Your task to perform on an android device: Open Chrome and go to settings Image 0: 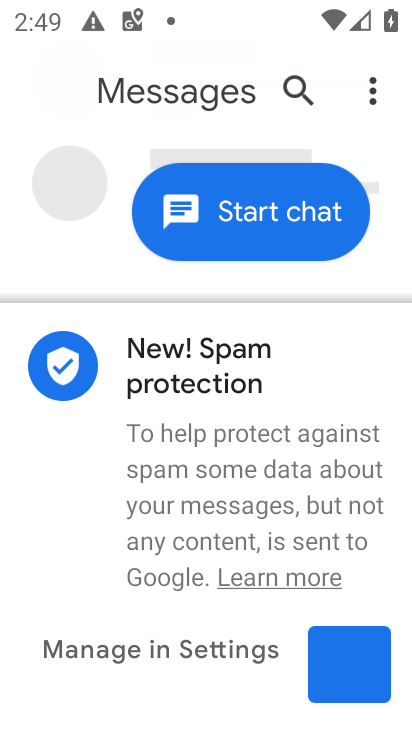
Step 0: press home button
Your task to perform on an android device: Open Chrome and go to settings Image 1: 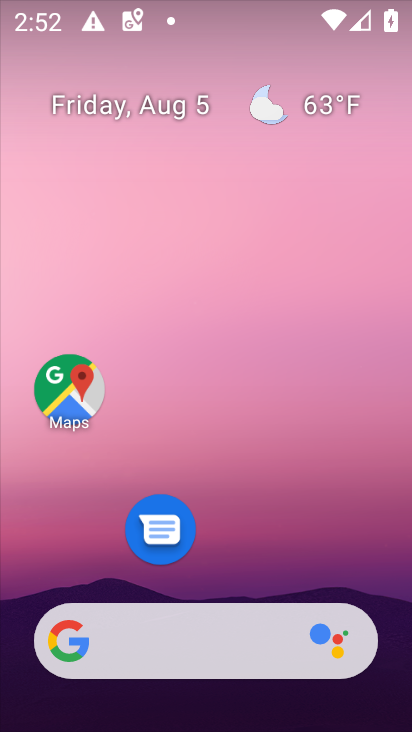
Step 1: drag from (116, 691) to (236, 73)
Your task to perform on an android device: Open Chrome and go to settings Image 2: 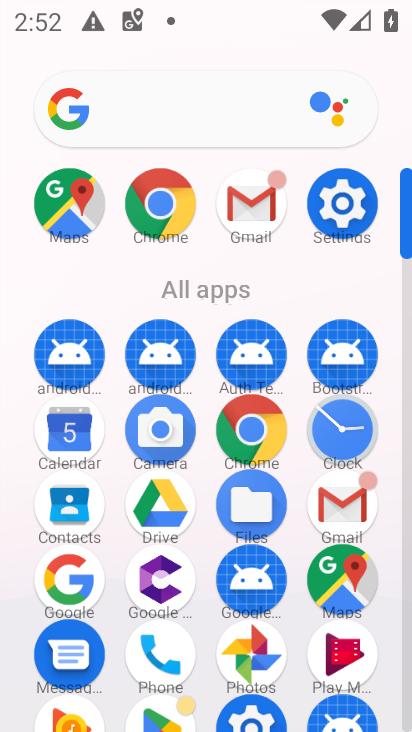
Step 2: click (161, 204)
Your task to perform on an android device: Open Chrome and go to settings Image 3: 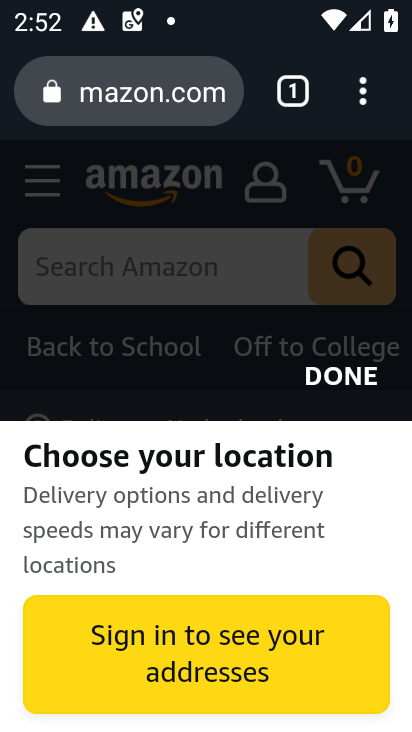
Step 3: click (367, 80)
Your task to perform on an android device: Open Chrome and go to settings Image 4: 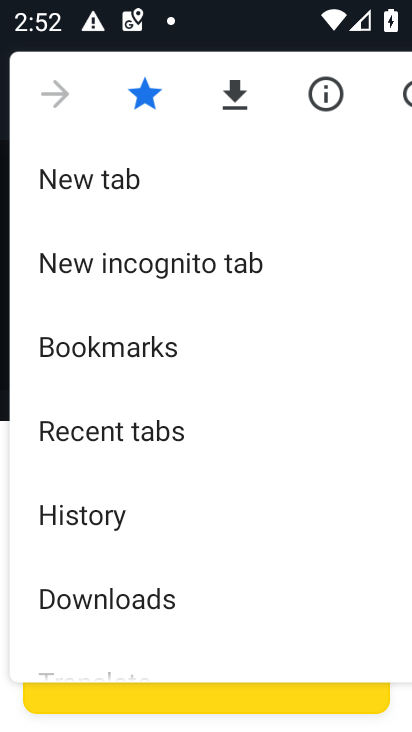
Step 4: drag from (202, 630) to (189, 125)
Your task to perform on an android device: Open Chrome and go to settings Image 5: 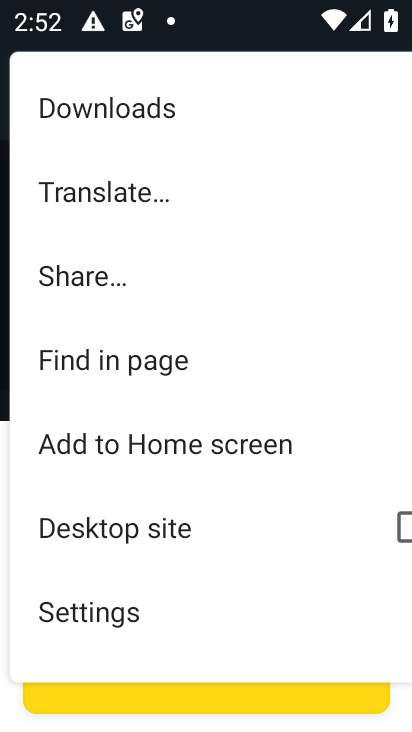
Step 5: click (123, 607)
Your task to perform on an android device: Open Chrome and go to settings Image 6: 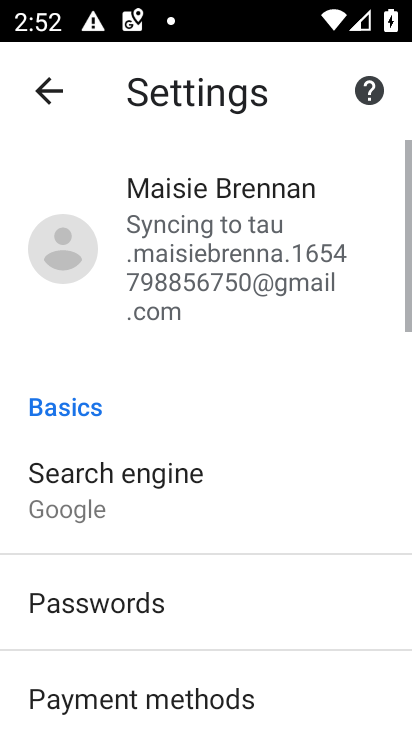
Step 6: task complete